Your task to perform on an android device: set the timer Image 0: 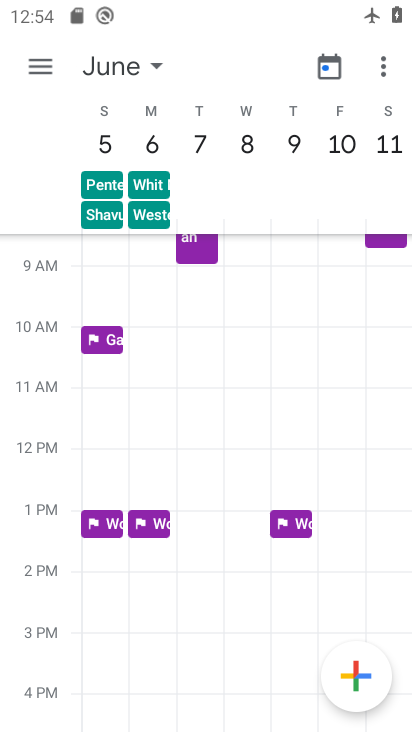
Step 0: press home button
Your task to perform on an android device: set the timer Image 1: 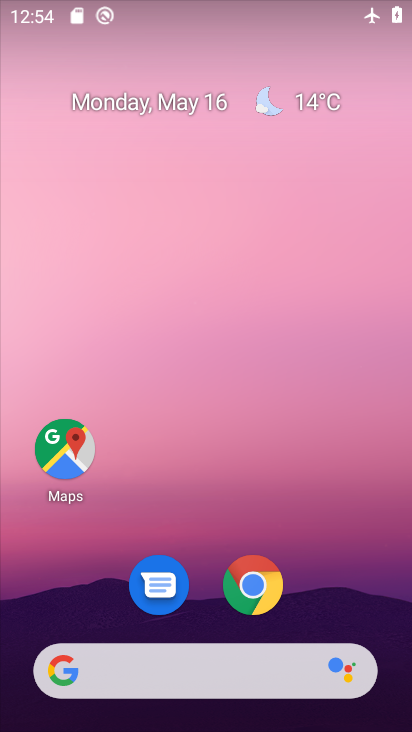
Step 1: drag from (201, 512) to (257, 48)
Your task to perform on an android device: set the timer Image 2: 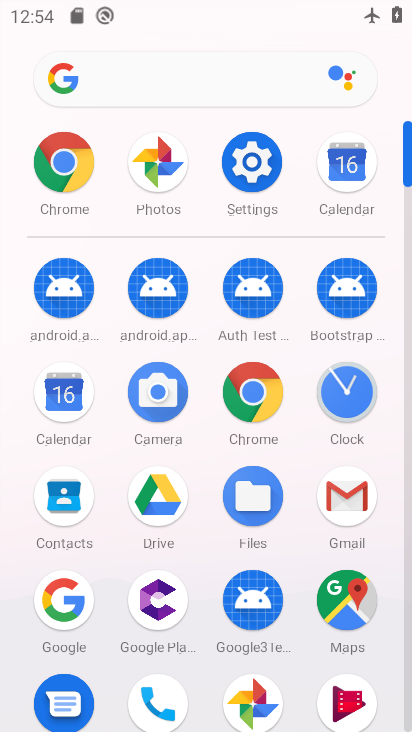
Step 2: click (337, 387)
Your task to perform on an android device: set the timer Image 3: 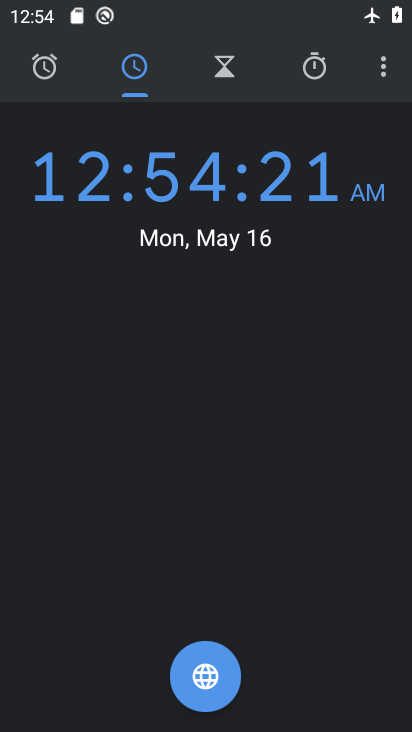
Step 3: click (226, 69)
Your task to perform on an android device: set the timer Image 4: 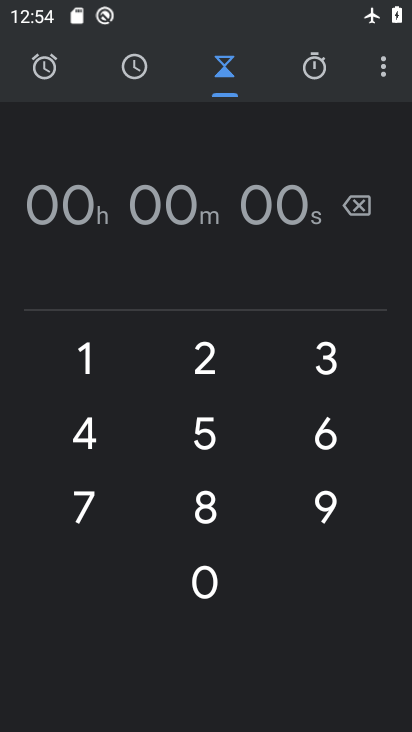
Step 4: click (89, 350)
Your task to perform on an android device: set the timer Image 5: 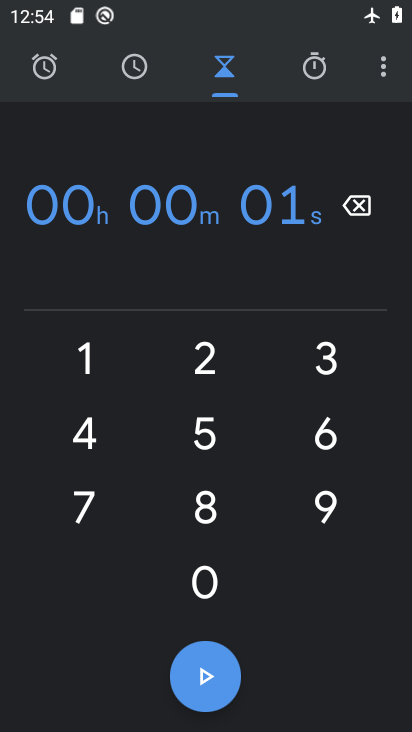
Step 5: task complete